Your task to perform on an android device: Show me popular games on the Play Store Image 0: 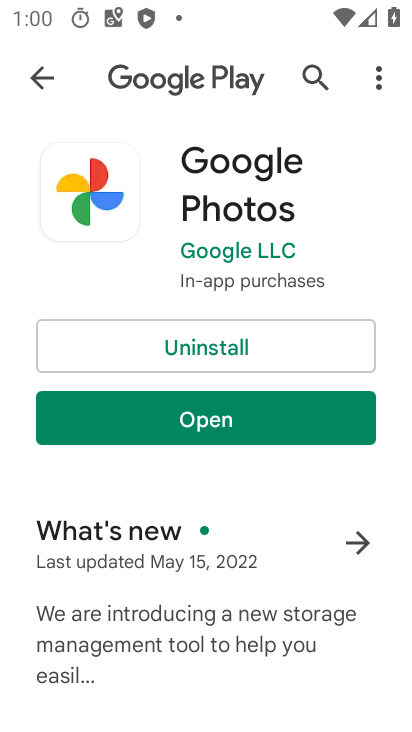
Step 0: press home button
Your task to perform on an android device: Show me popular games on the Play Store Image 1: 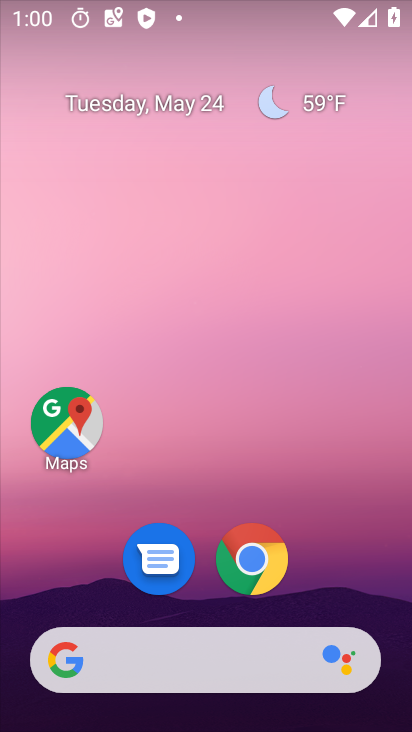
Step 1: drag from (399, 676) to (354, 161)
Your task to perform on an android device: Show me popular games on the Play Store Image 2: 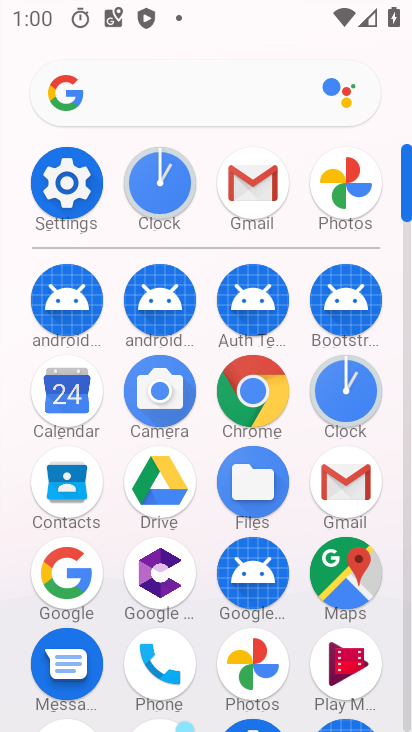
Step 2: drag from (406, 164) to (404, 124)
Your task to perform on an android device: Show me popular games on the Play Store Image 3: 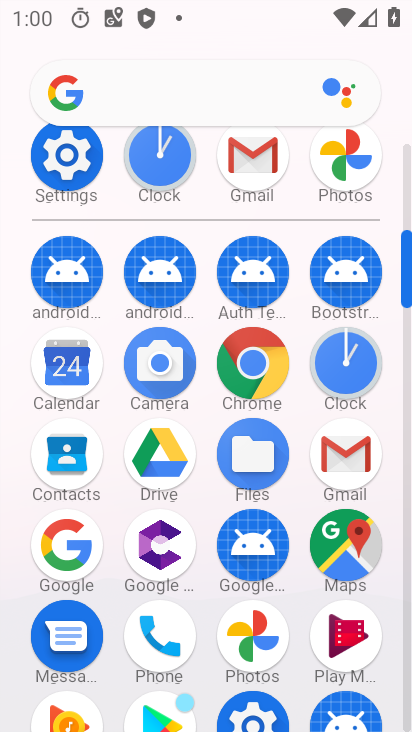
Step 3: click (149, 705)
Your task to perform on an android device: Show me popular games on the Play Store Image 4: 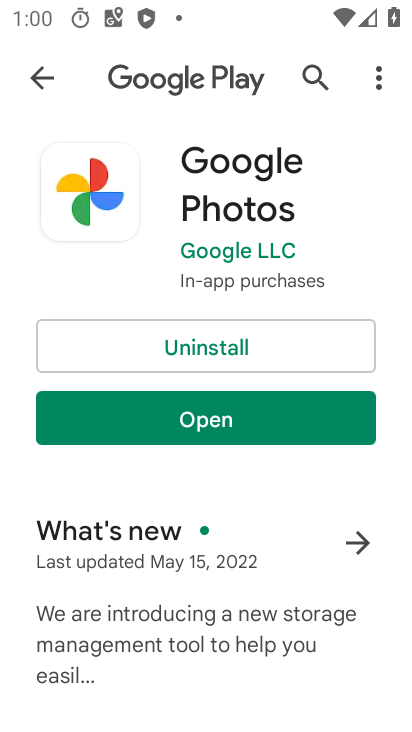
Step 4: click (228, 405)
Your task to perform on an android device: Show me popular games on the Play Store Image 5: 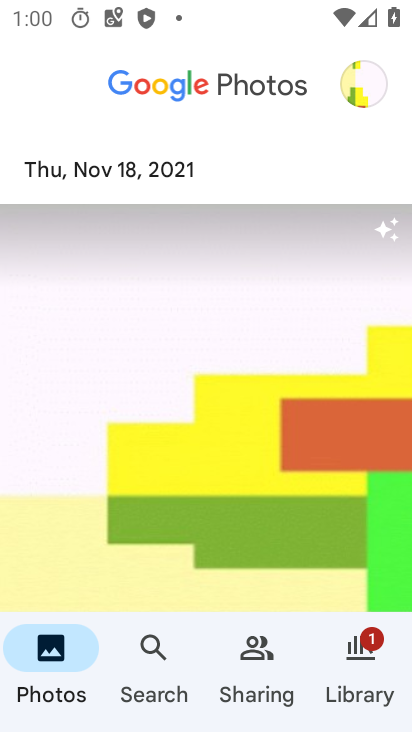
Step 5: press back button
Your task to perform on an android device: Show me popular games on the Play Store Image 6: 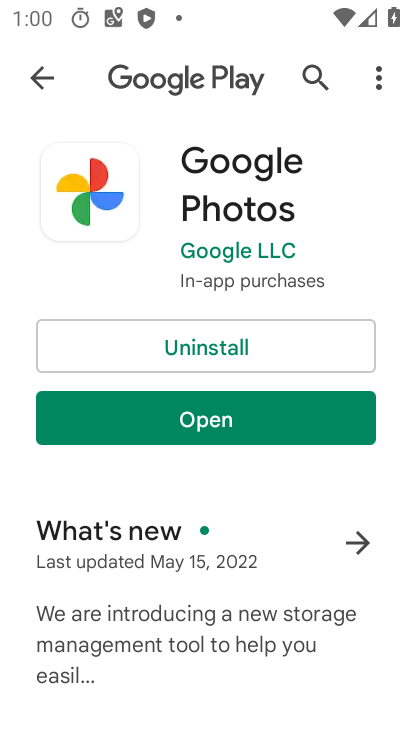
Step 6: press back button
Your task to perform on an android device: Show me popular games on the Play Store Image 7: 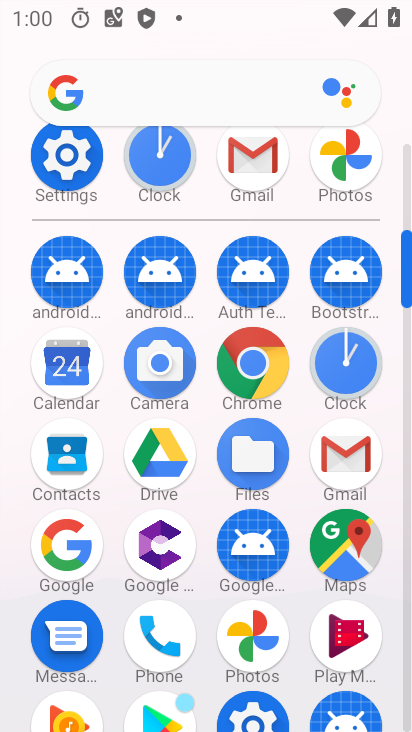
Step 7: click (160, 716)
Your task to perform on an android device: Show me popular games on the Play Store Image 8: 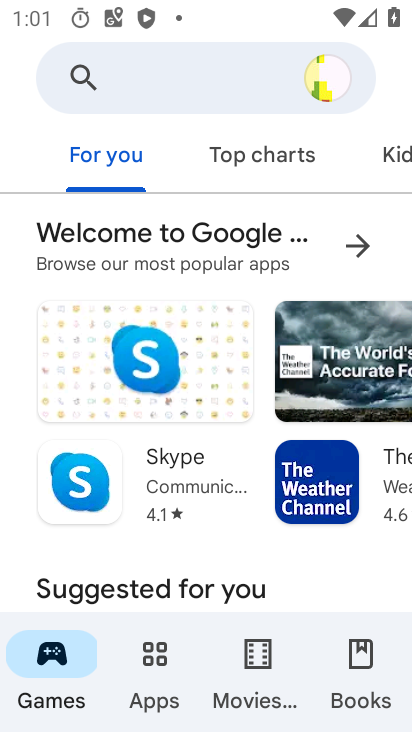
Step 8: click (261, 82)
Your task to perform on an android device: Show me popular games on the Play Store Image 9: 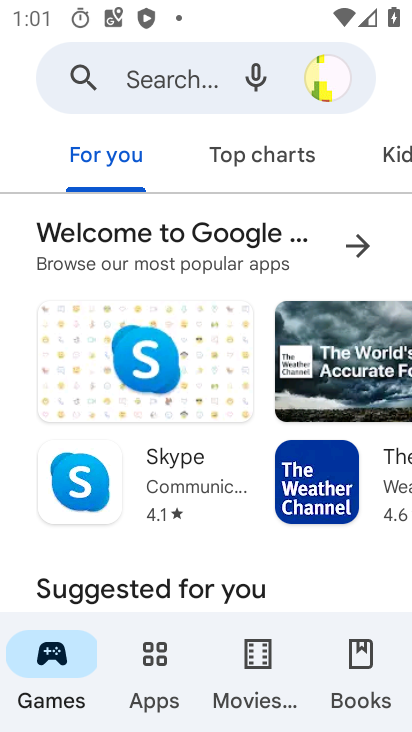
Step 9: click (185, 79)
Your task to perform on an android device: Show me popular games on the Play Store Image 10: 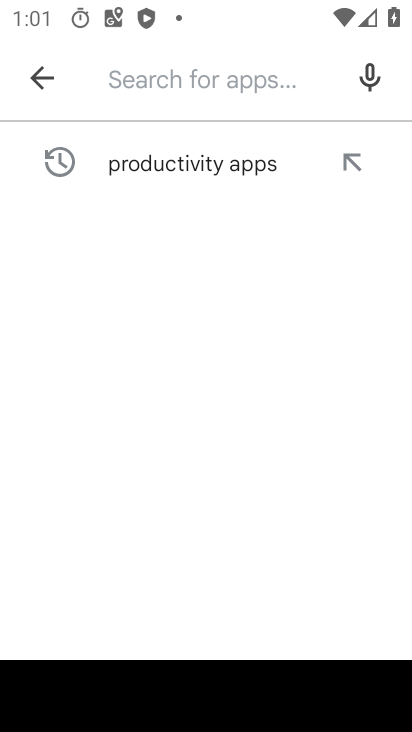
Step 10: type "popular games"
Your task to perform on an android device: Show me popular games on the Play Store Image 11: 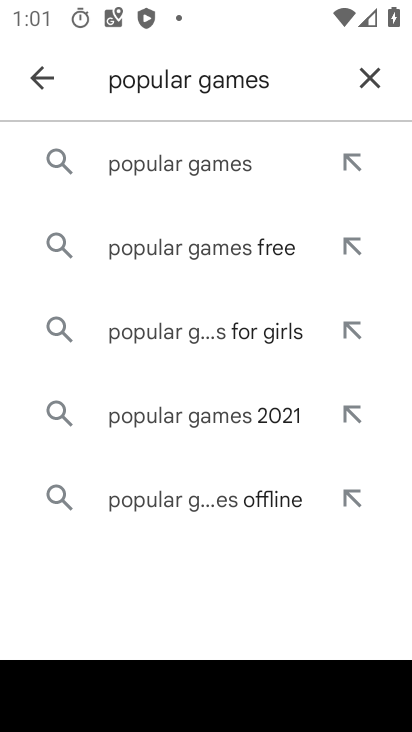
Step 11: click (222, 167)
Your task to perform on an android device: Show me popular games on the Play Store Image 12: 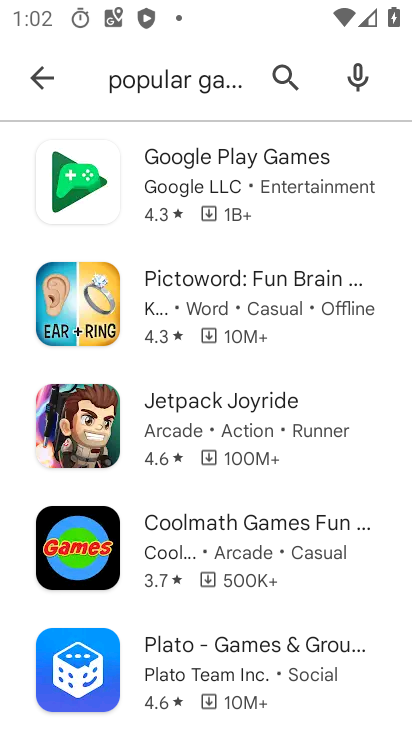
Step 12: task complete